Your task to perform on an android device: Open location settings Image 0: 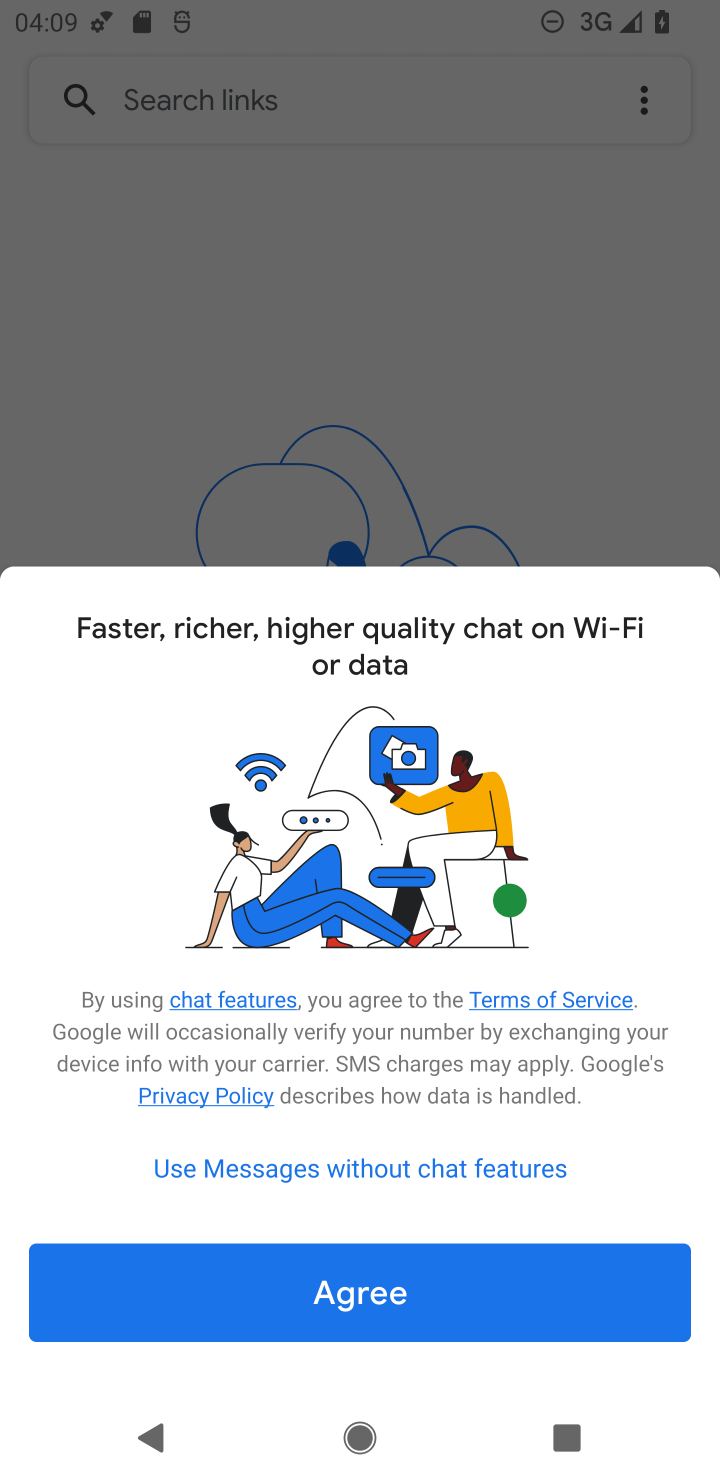
Step 0: press home button
Your task to perform on an android device: Open location settings Image 1: 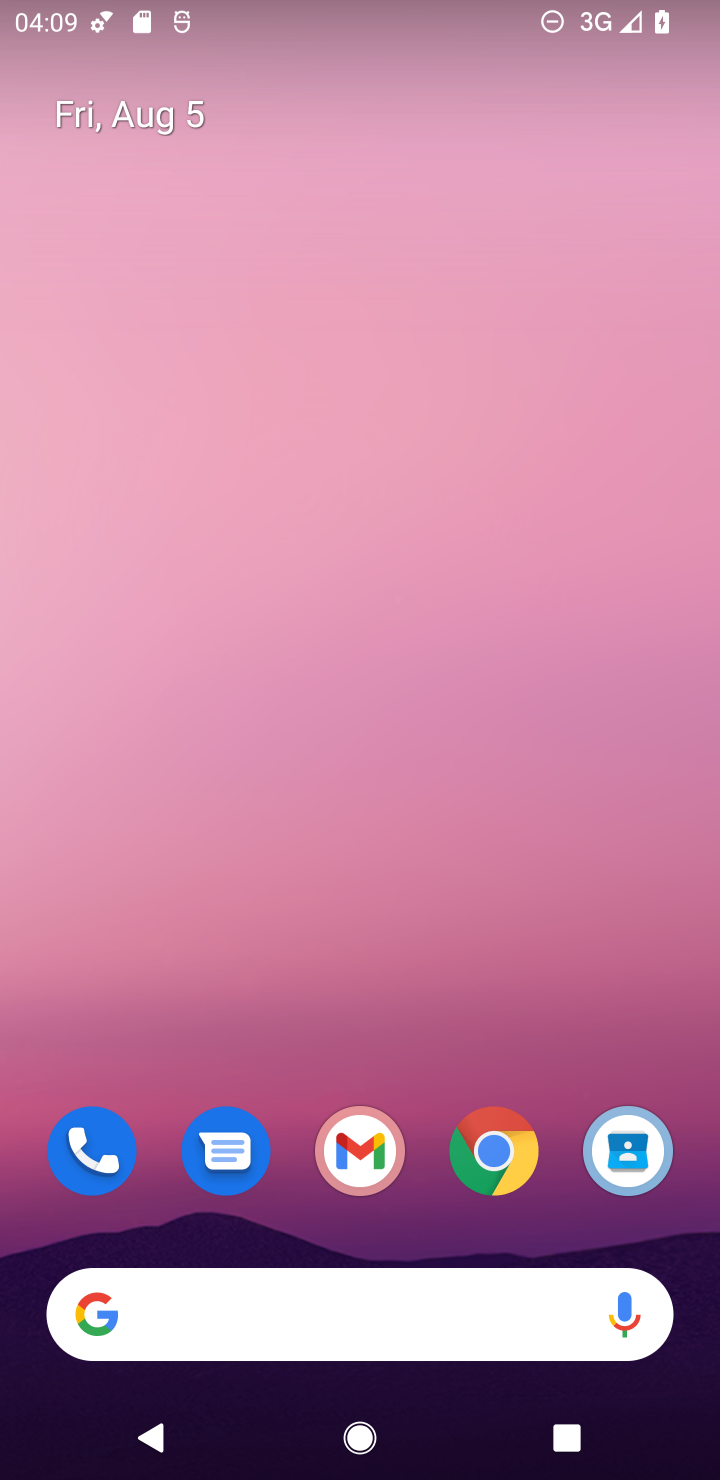
Step 1: drag from (434, 1083) to (395, 440)
Your task to perform on an android device: Open location settings Image 2: 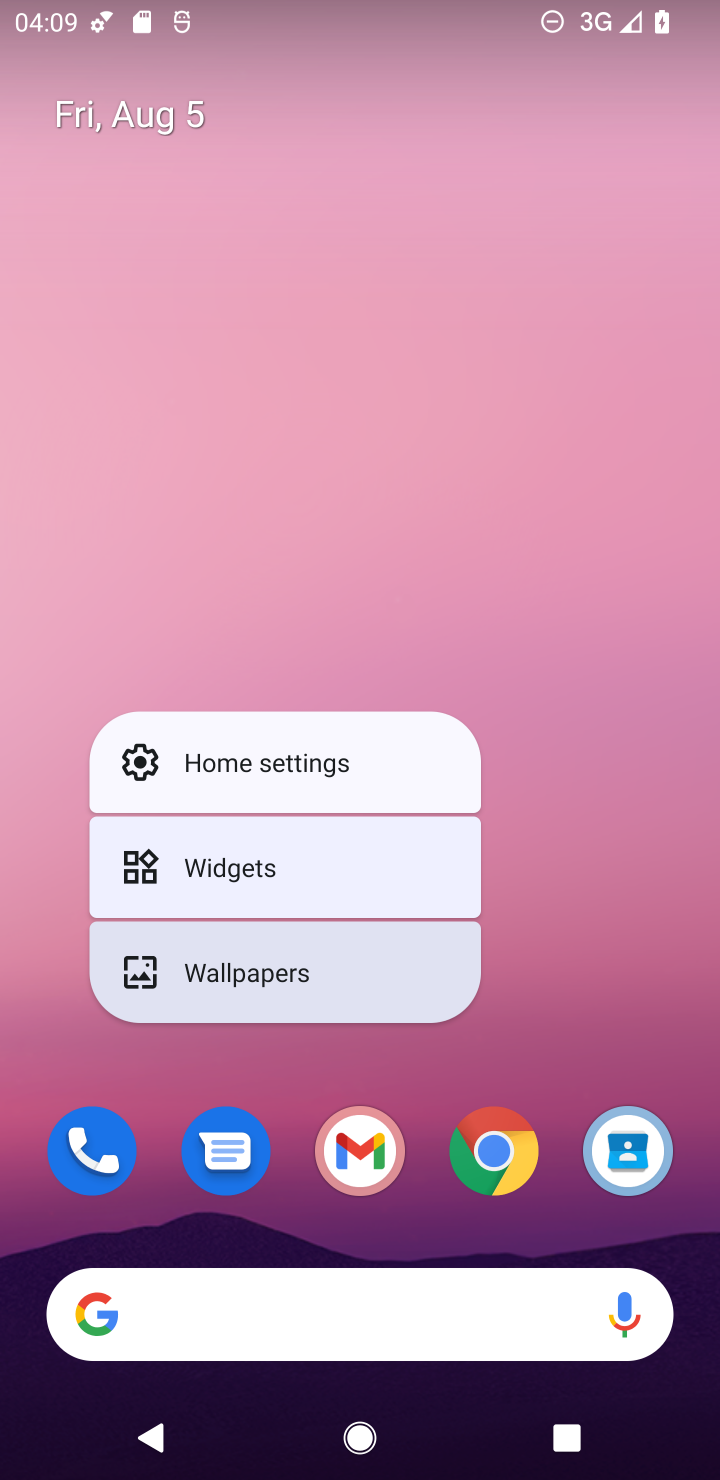
Step 2: click (637, 679)
Your task to perform on an android device: Open location settings Image 3: 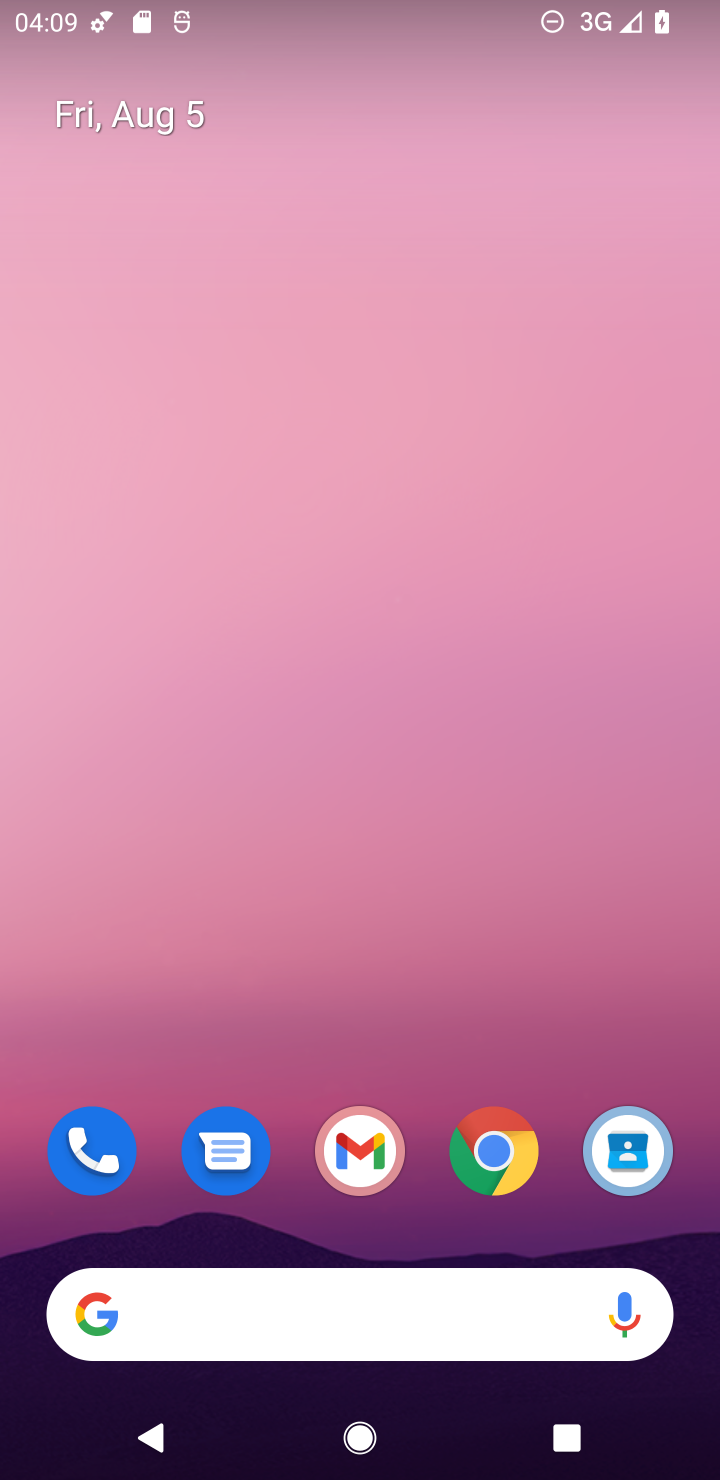
Step 3: drag from (369, 1044) to (159, 0)
Your task to perform on an android device: Open location settings Image 4: 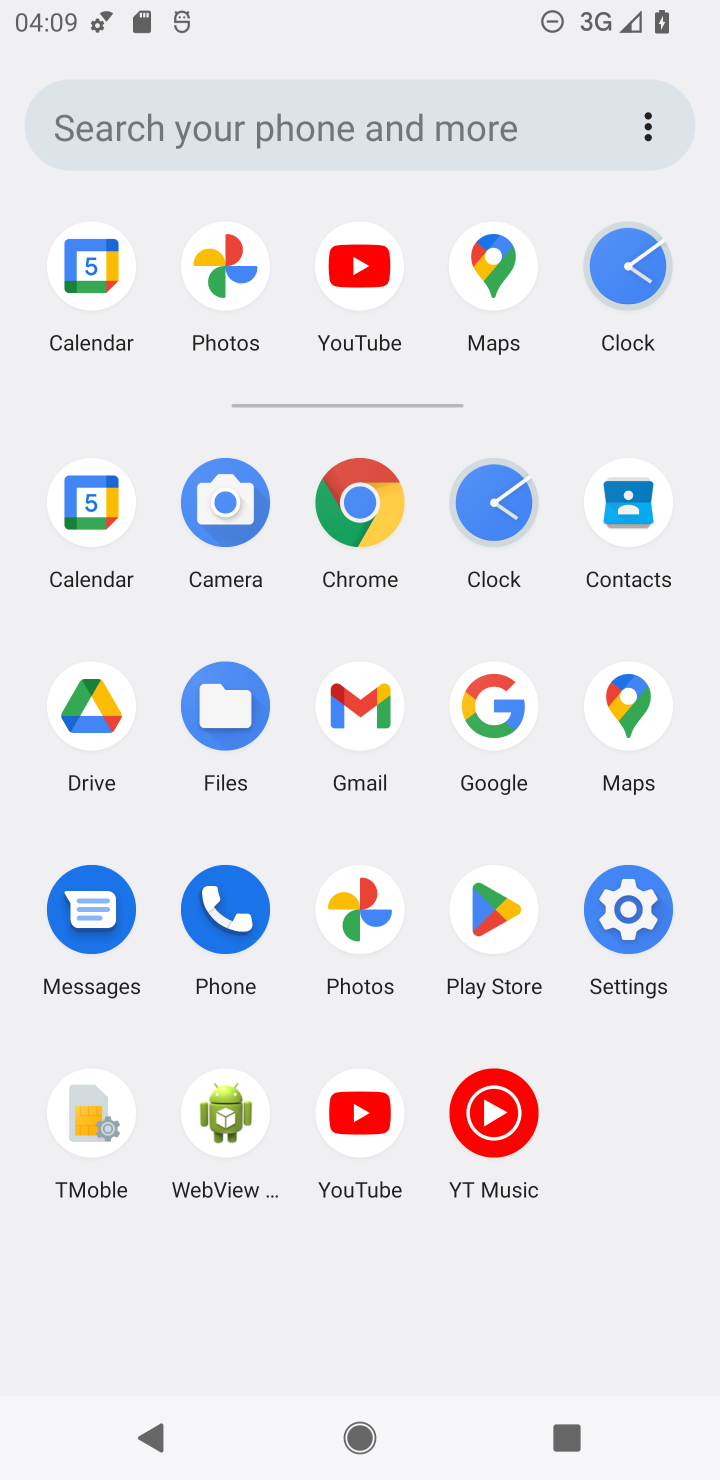
Step 4: click (647, 889)
Your task to perform on an android device: Open location settings Image 5: 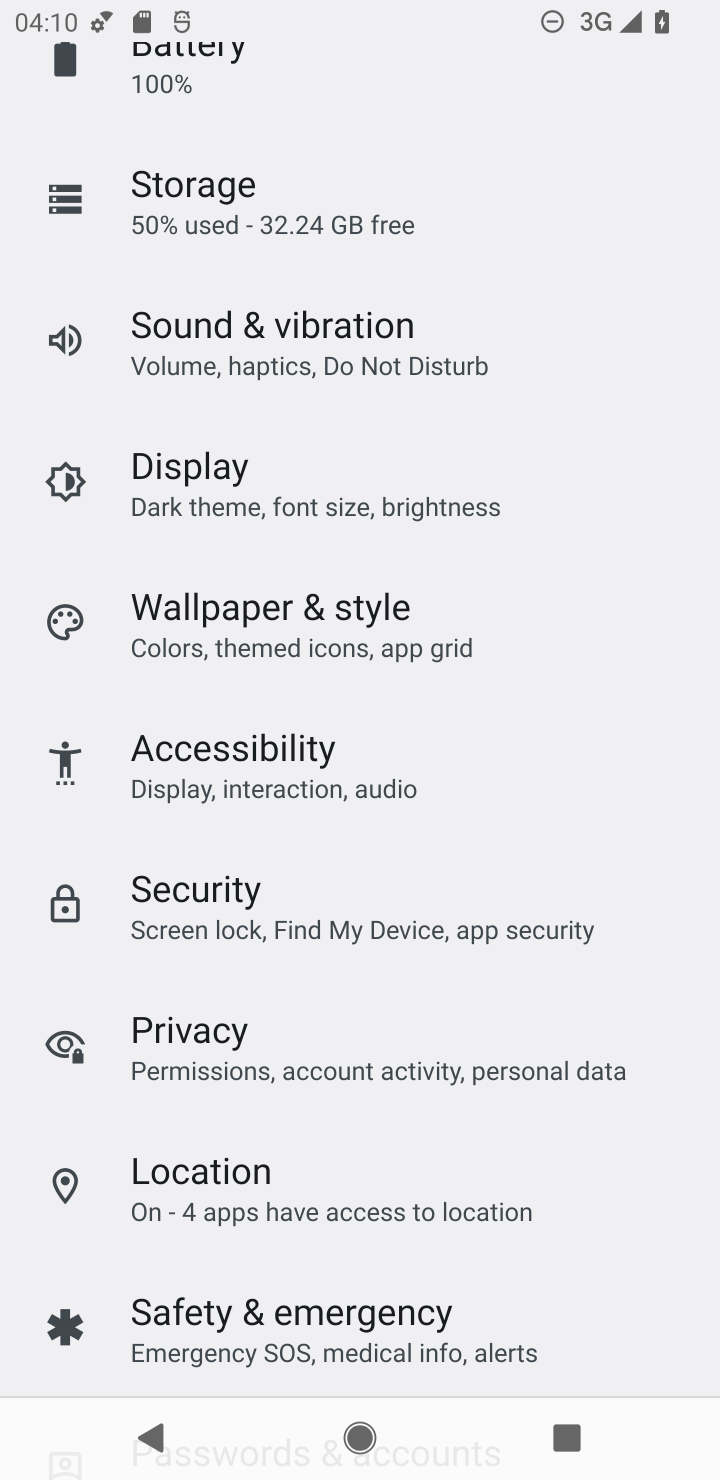
Step 5: click (268, 1206)
Your task to perform on an android device: Open location settings Image 6: 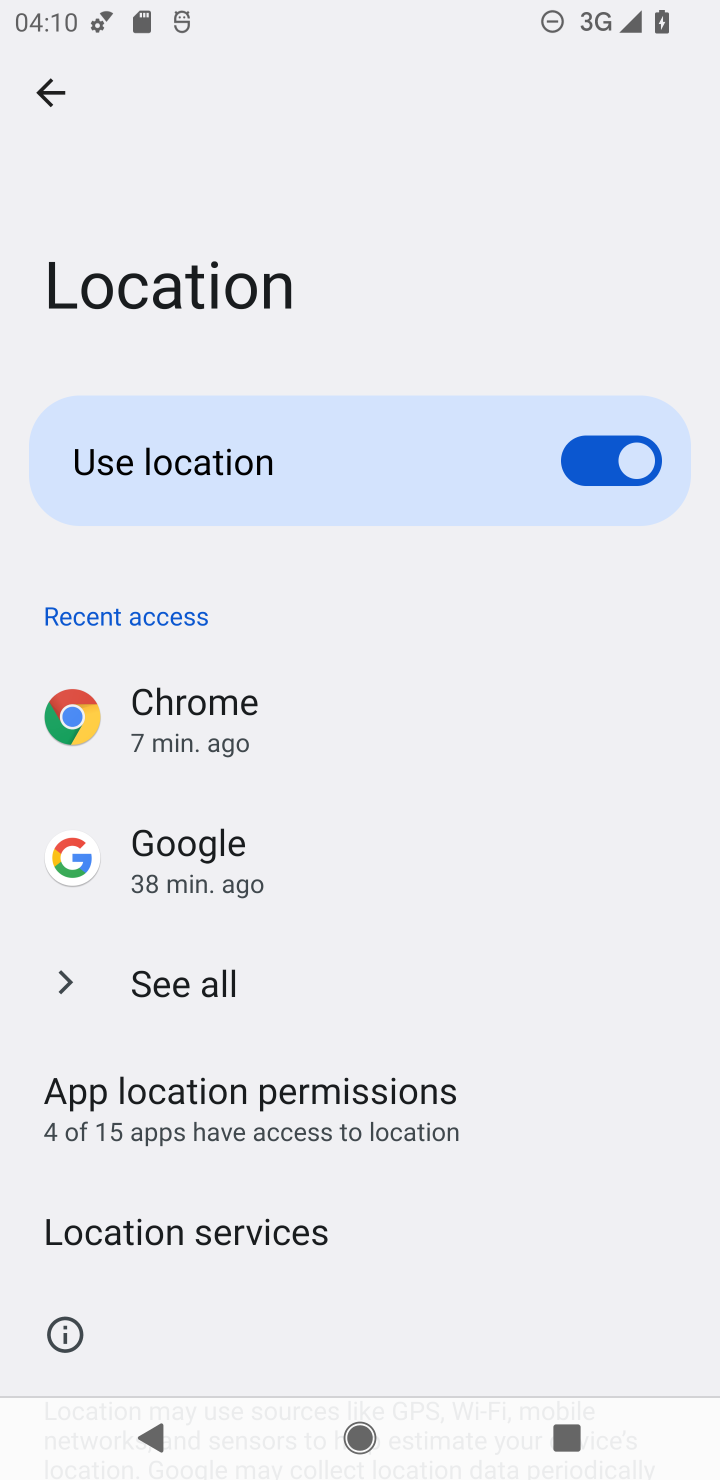
Step 6: task complete